Your task to perform on an android device: turn on improve location accuracy Image 0: 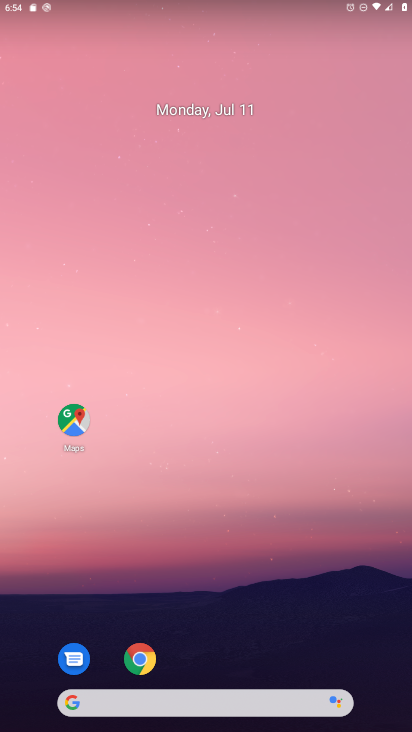
Step 0: drag from (351, 652) to (331, 183)
Your task to perform on an android device: turn on improve location accuracy Image 1: 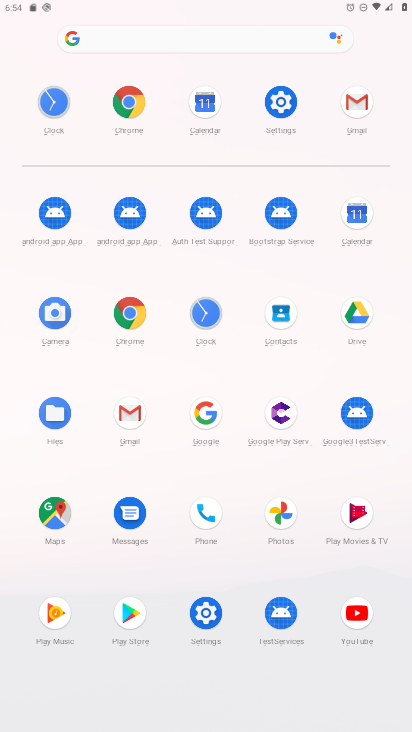
Step 1: click (206, 617)
Your task to perform on an android device: turn on improve location accuracy Image 2: 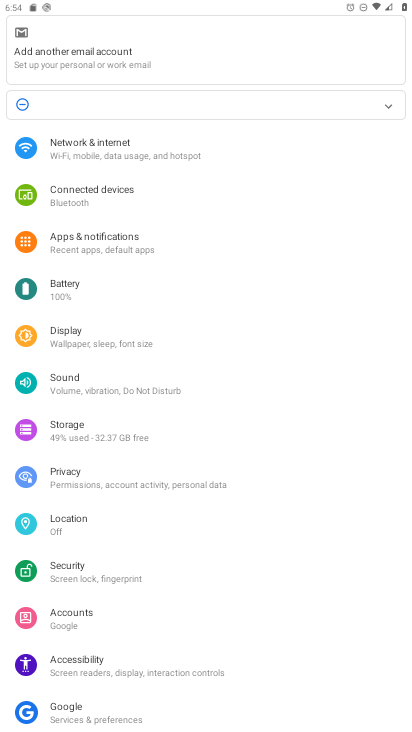
Step 2: click (68, 526)
Your task to perform on an android device: turn on improve location accuracy Image 3: 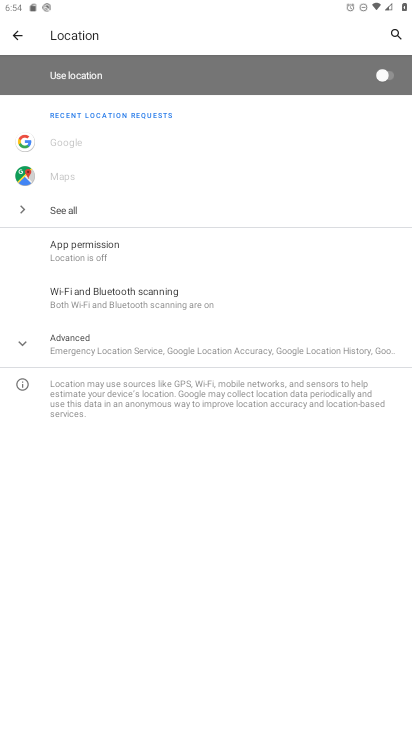
Step 3: click (26, 348)
Your task to perform on an android device: turn on improve location accuracy Image 4: 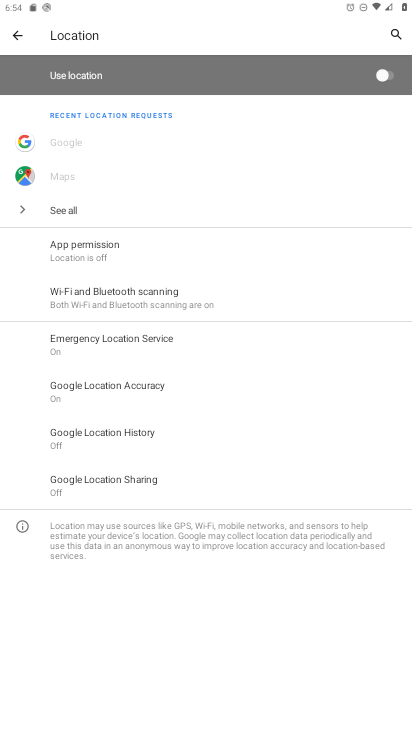
Step 4: click (95, 387)
Your task to perform on an android device: turn on improve location accuracy Image 5: 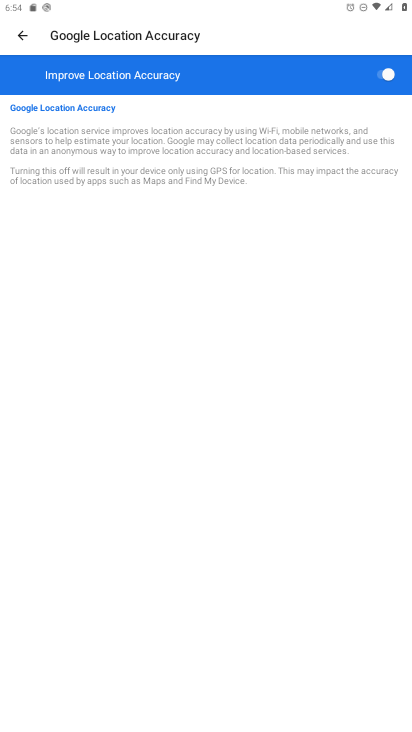
Step 5: task complete